Your task to perform on an android device: change the clock display to show seconds Image 0: 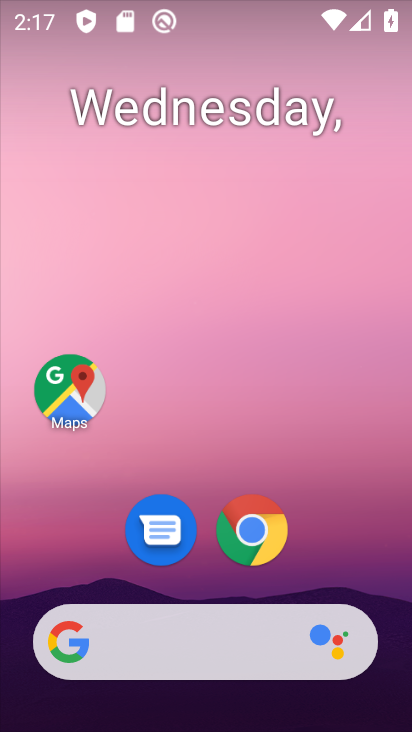
Step 0: drag from (224, 628) to (260, 174)
Your task to perform on an android device: change the clock display to show seconds Image 1: 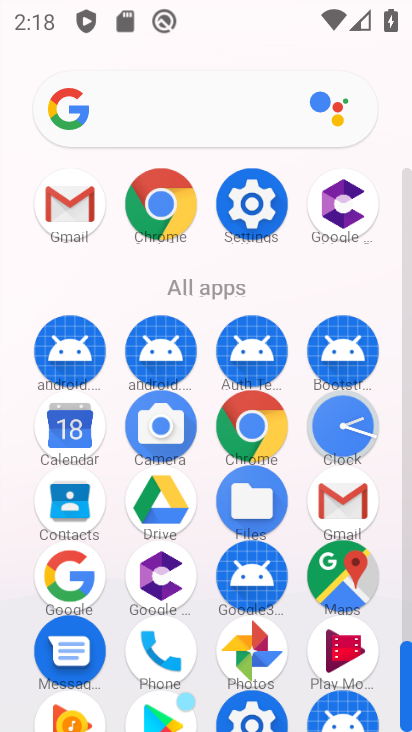
Step 1: click (322, 422)
Your task to perform on an android device: change the clock display to show seconds Image 2: 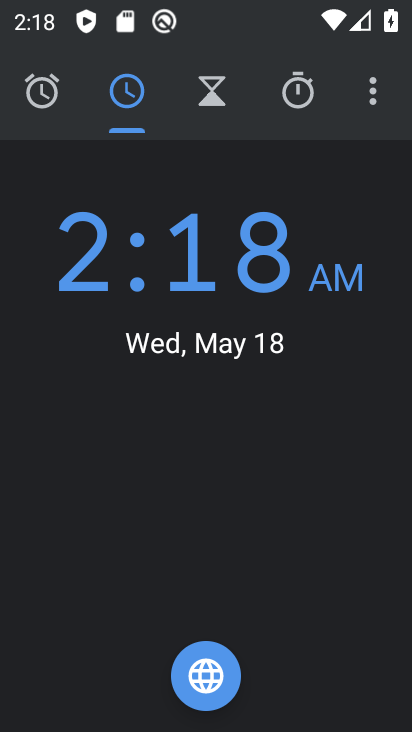
Step 2: click (376, 83)
Your task to perform on an android device: change the clock display to show seconds Image 3: 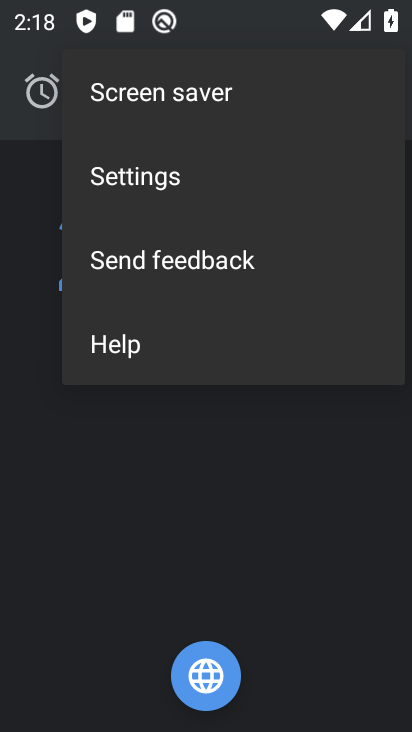
Step 3: click (247, 171)
Your task to perform on an android device: change the clock display to show seconds Image 4: 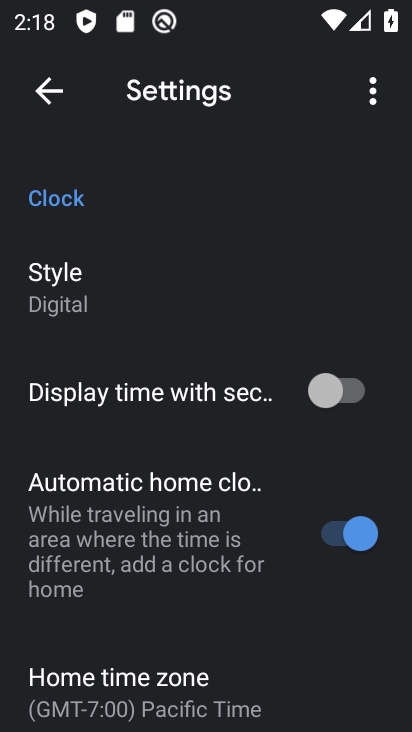
Step 4: click (347, 386)
Your task to perform on an android device: change the clock display to show seconds Image 5: 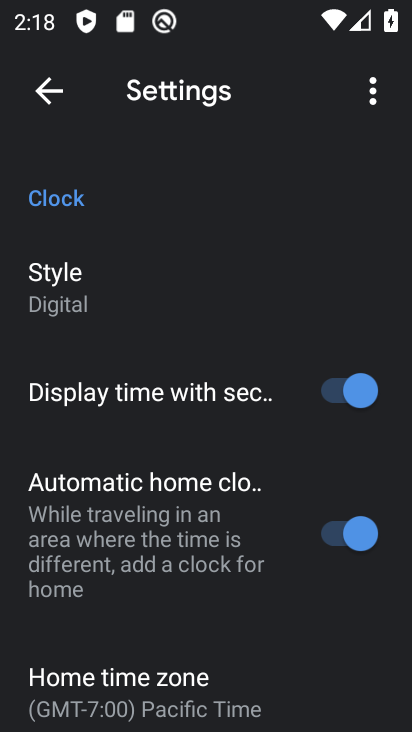
Step 5: task complete